Your task to perform on an android device: find which apps use the phone's location Image 0: 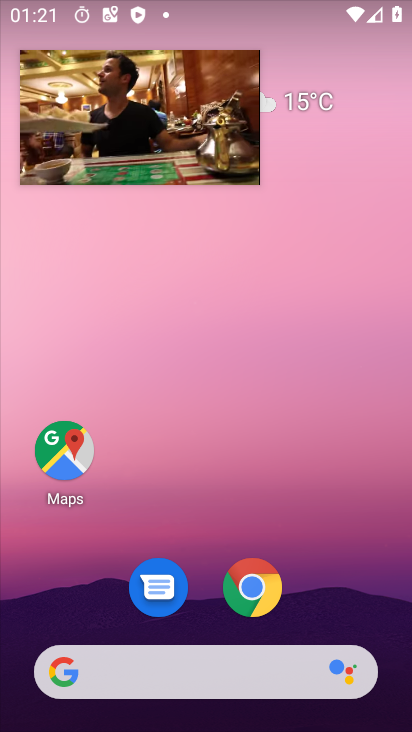
Step 0: drag from (333, 428) to (323, 223)
Your task to perform on an android device: find which apps use the phone's location Image 1: 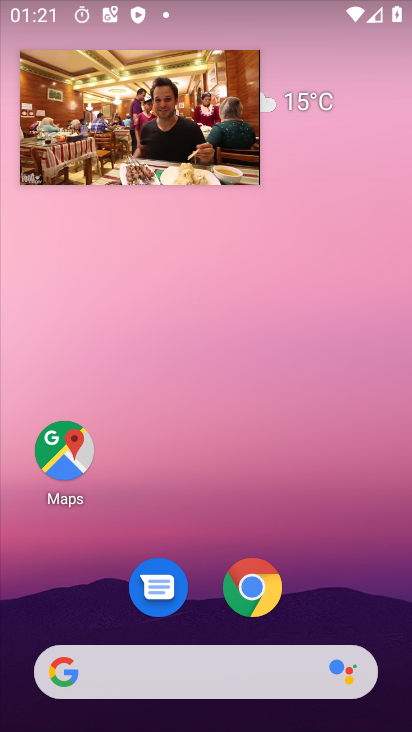
Step 1: drag from (355, 501) to (321, 259)
Your task to perform on an android device: find which apps use the phone's location Image 2: 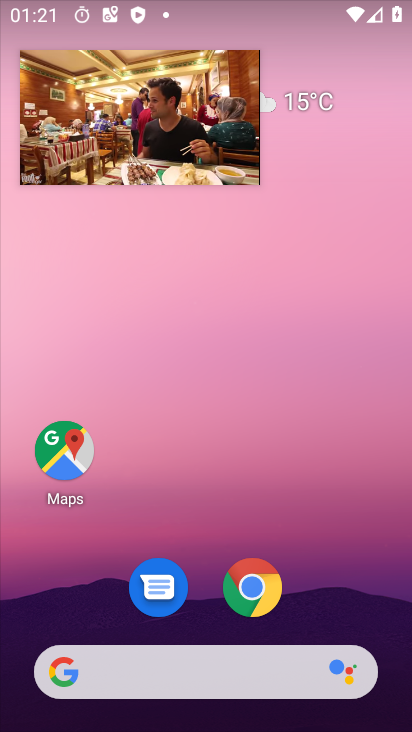
Step 2: drag from (380, 633) to (347, 119)
Your task to perform on an android device: find which apps use the phone's location Image 3: 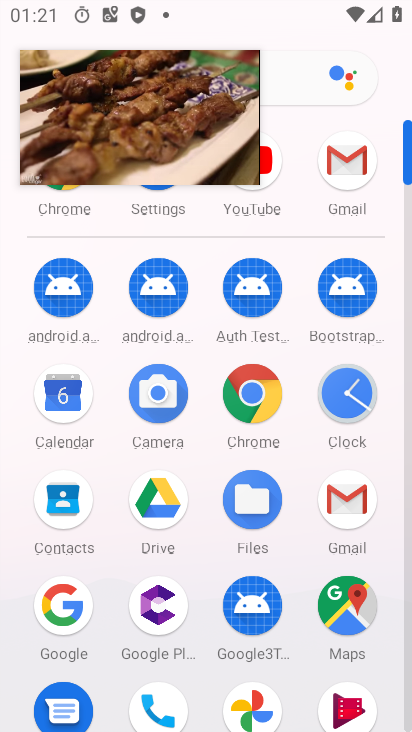
Step 3: click (163, 198)
Your task to perform on an android device: find which apps use the phone's location Image 4: 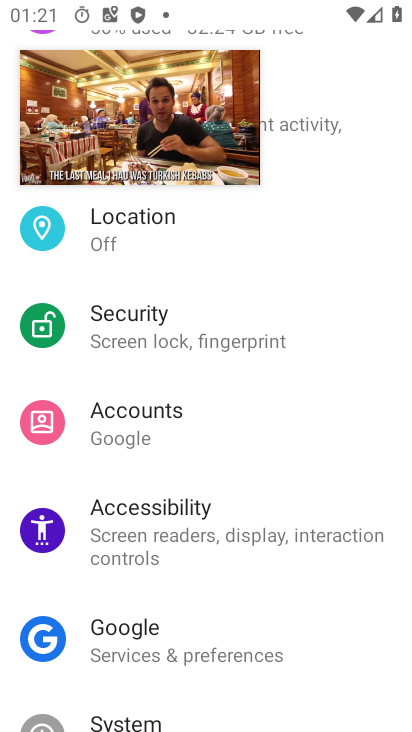
Step 4: click (107, 227)
Your task to perform on an android device: find which apps use the phone's location Image 5: 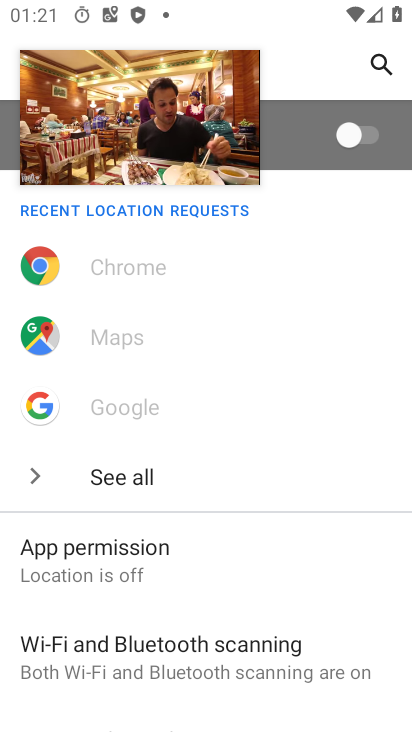
Step 5: click (120, 554)
Your task to perform on an android device: find which apps use the phone's location Image 6: 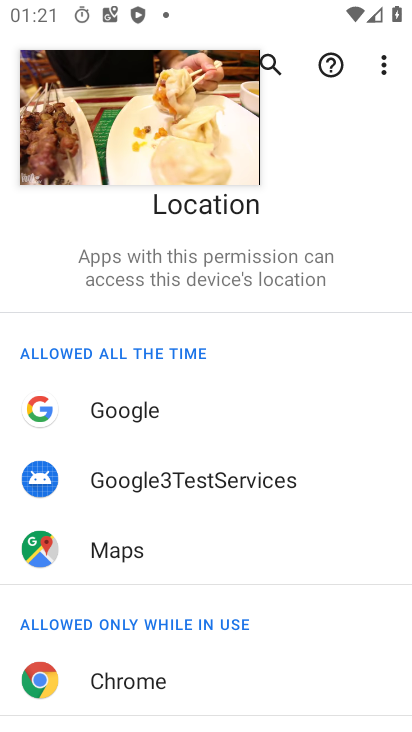
Step 6: task complete